Your task to perform on an android device: open the mobile data screen to see how much data has been used Image 0: 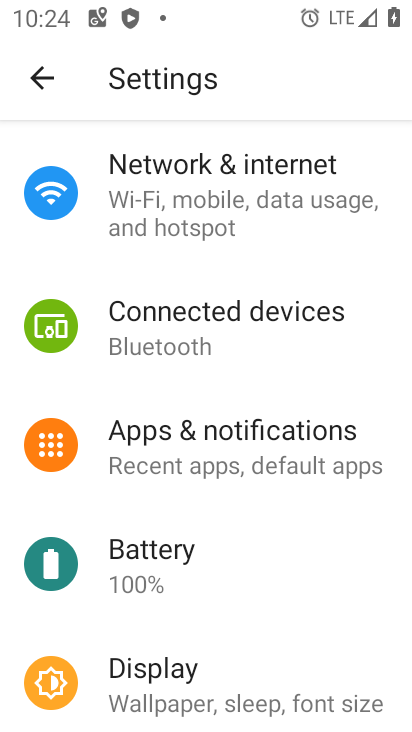
Step 0: drag from (340, 601) to (342, 456)
Your task to perform on an android device: open the mobile data screen to see how much data has been used Image 1: 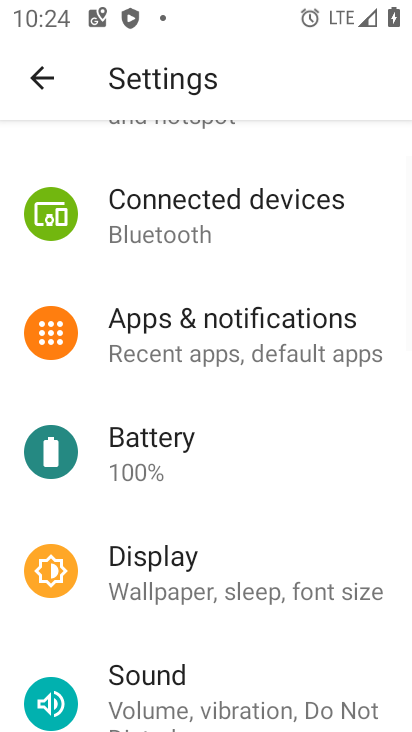
Step 1: drag from (350, 616) to (349, 491)
Your task to perform on an android device: open the mobile data screen to see how much data has been used Image 2: 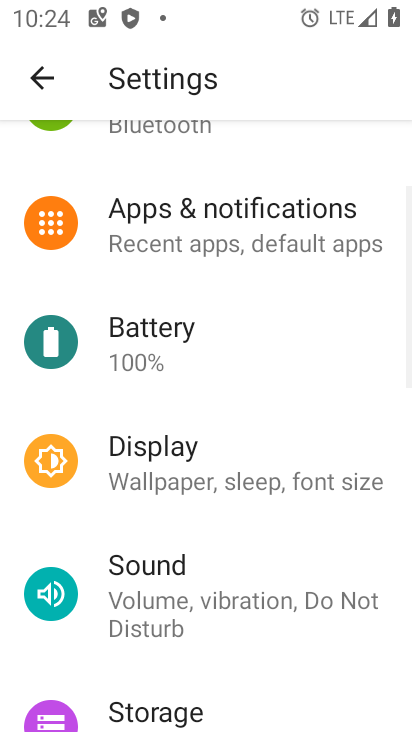
Step 2: drag from (334, 640) to (334, 536)
Your task to perform on an android device: open the mobile data screen to see how much data has been used Image 3: 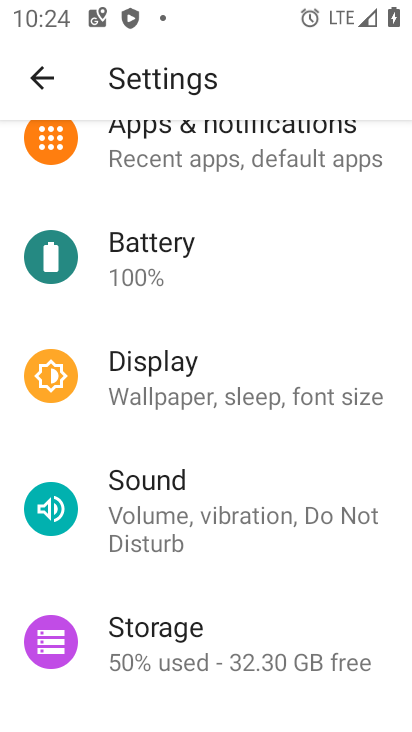
Step 3: drag from (335, 653) to (340, 547)
Your task to perform on an android device: open the mobile data screen to see how much data has been used Image 4: 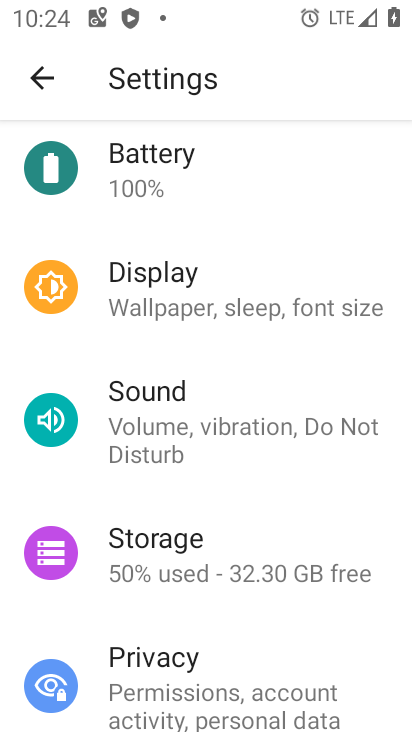
Step 4: drag from (344, 615) to (350, 550)
Your task to perform on an android device: open the mobile data screen to see how much data has been used Image 5: 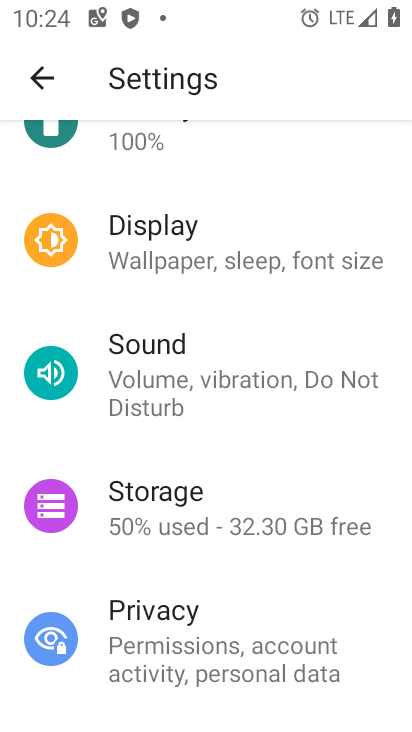
Step 5: drag from (353, 612) to (333, 464)
Your task to perform on an android device: open the mobile data screen to see how much data has been used Image 6: 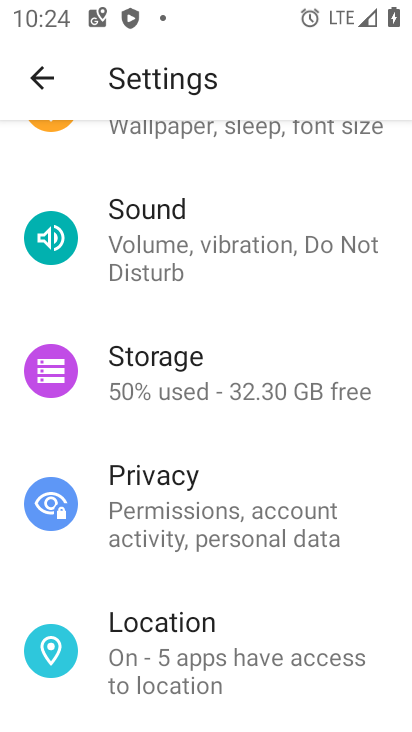
Step 6: drag from (349, 346) to (361, 470)
Your task to perform on an android device: open the mobile data screen to see how much data has been used Image 7: 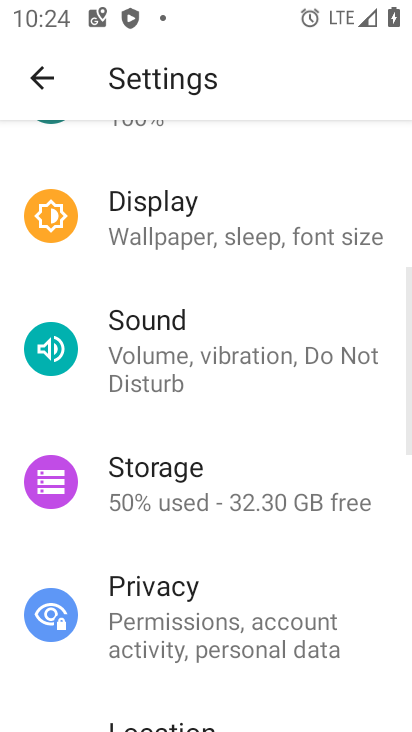
Step 7: drag from (361, 360) to (360, 450)
Your task to perform on an android device: open the mobile data screen to see how much data has been used Image 8: 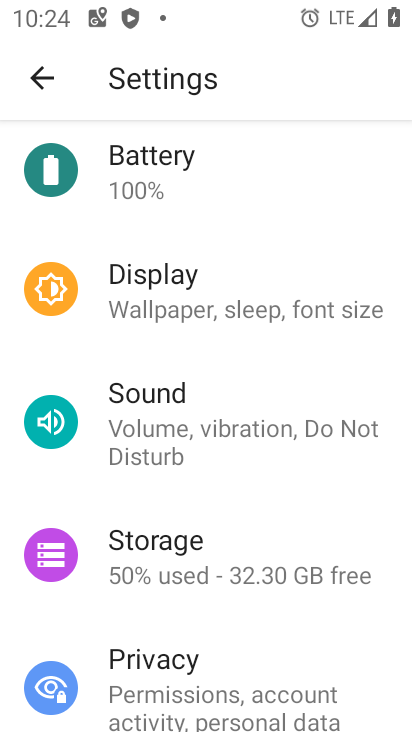
Step 8: drag from (354, 366) to (355, 470)
Your task to perform on an android device: open the mobile data screen to see how much data has been used Image 9: 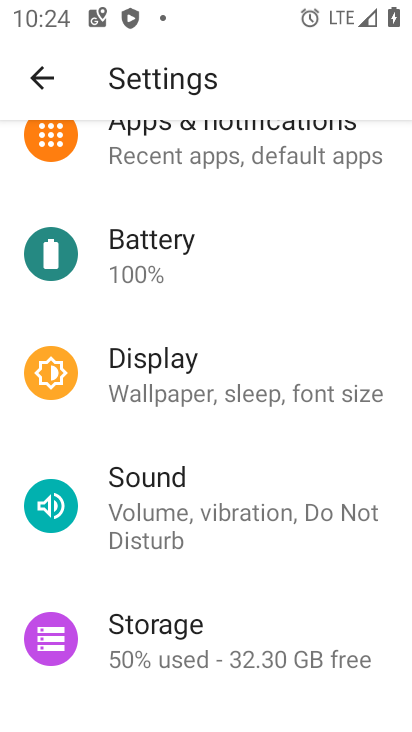
Step 9: drag from (354, 319) to (356, 446)
Your task to perform on an android device: open the mobile data screen to see how much data has been used Image 10: 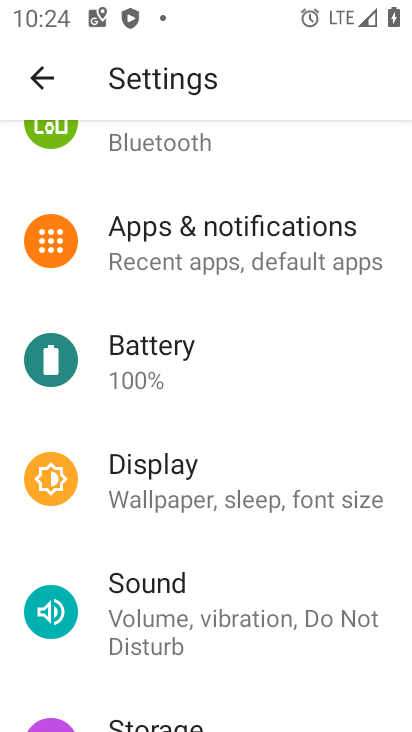
Step 10: drag from (347, 325) to (348, 428)
Your task to perform on an android device: open the mobile data screen to see how much data has been used Image 11: 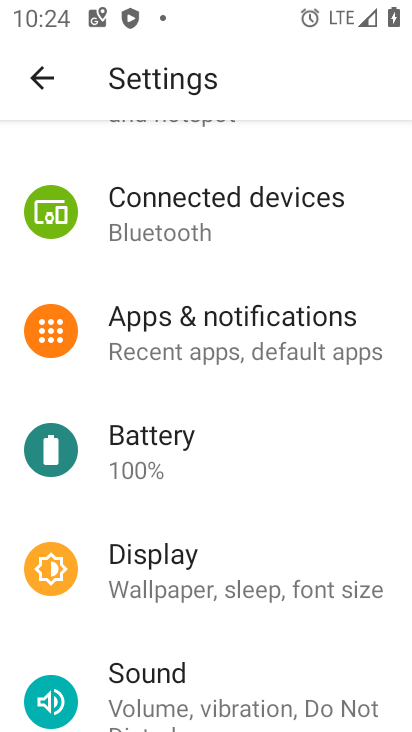
Step 11: drag from (342, 275) to (343, 383)
Your task to perform on an android device: open the mobile data screen to see how much data has been used Image 12: 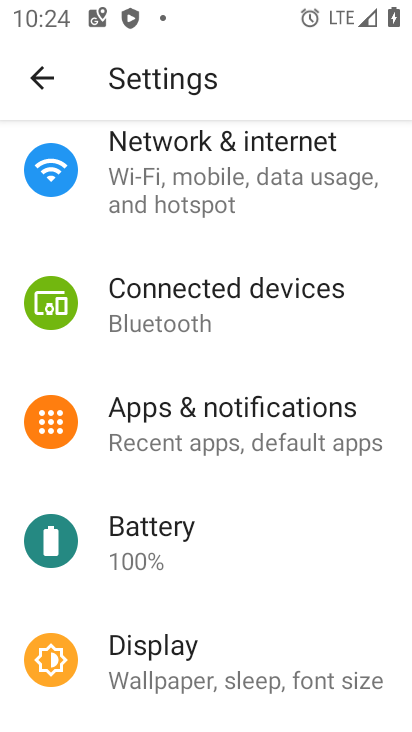
Step 12: drag from (361, 257) to (360, 417)
Your task to perform on an android device: open the mobile data screen to see how much data has been used Image 13: 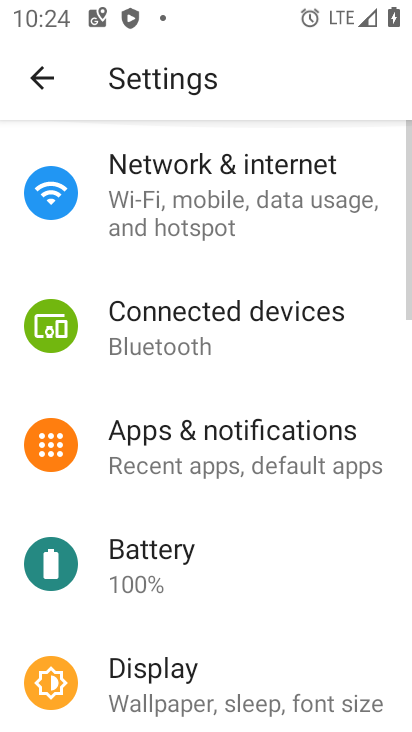
Step 13: click (327, 217)
Your task to perform on an android device: open the mobile data screen to see how much data has been used Image 14: 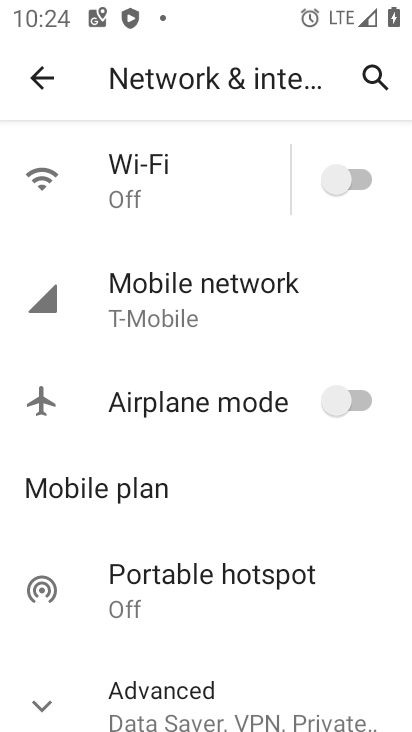
Step 14: click (298, 293)
Your task to perform on an android device: open the mobile data screen to see how much data has been used Image 15: 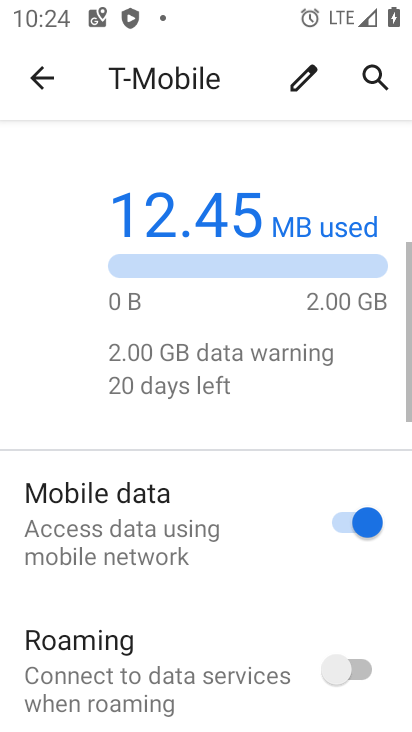
Step 15: drag from (283, 433) to (288, 332)
Your task to perform on an android device: open the mobile data screen to see how much data has been used Image 16: 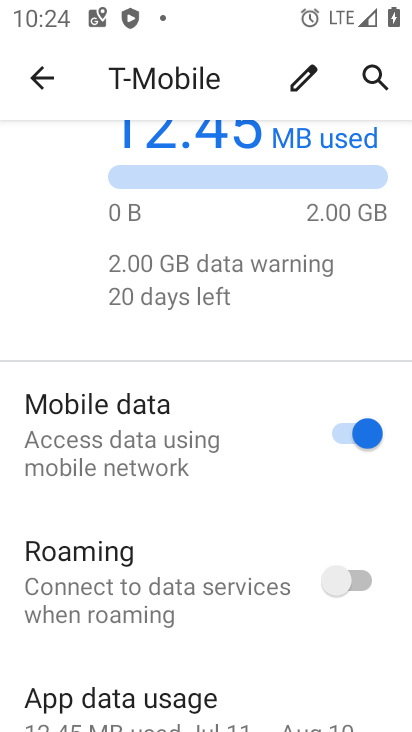
Step 16: drag from (275, 452) to (273, 336)
Your task to perform on an android device: open the mobile data screen to see how much data has been used Image 17: 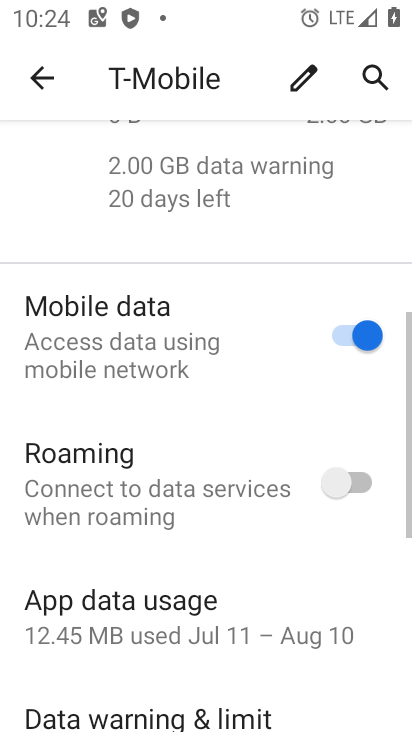
Step 17: drag from (254, 495) to (257, 344)
Your task to perform on an android device: open the mobile data screen to see how much data has been used Image 18: 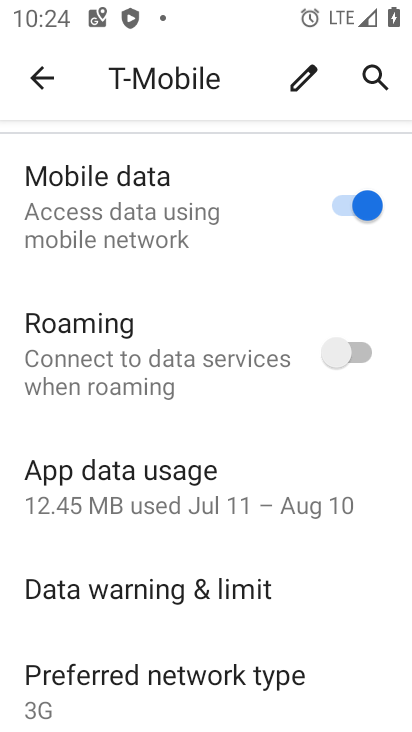
Step 18: click (262, 486)
Your task to perform on an android device: open the mobile data screen to see how much data has been used Image 19: 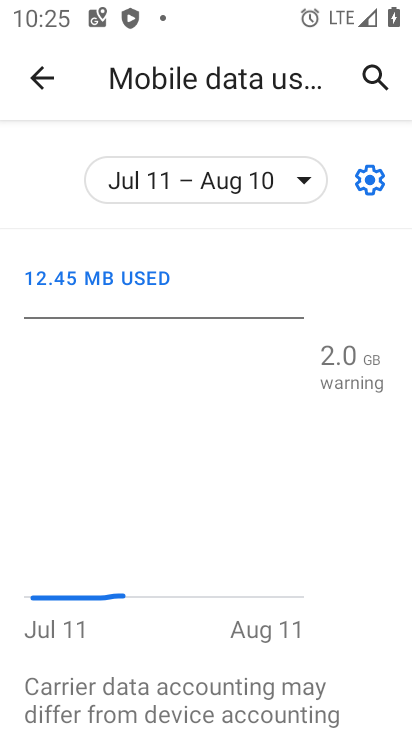
Step 19: task complete